Your task to perform on an android device: allow notifications from all sites in the chrome app Image 0: 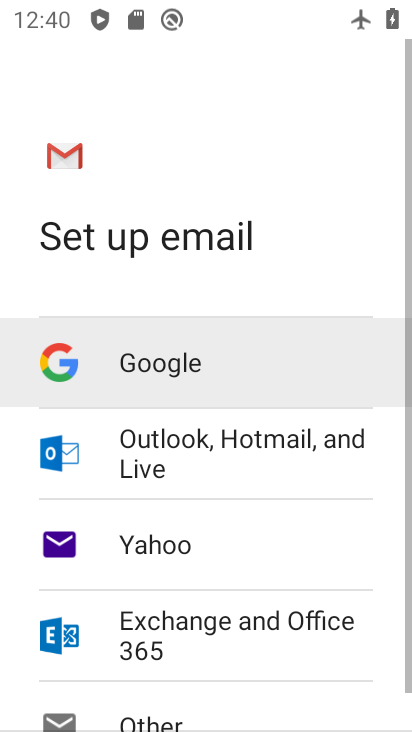
Step 0: press home button
Your task to perform on an android device: allow notifications from all sites in the chrome app Image 1: 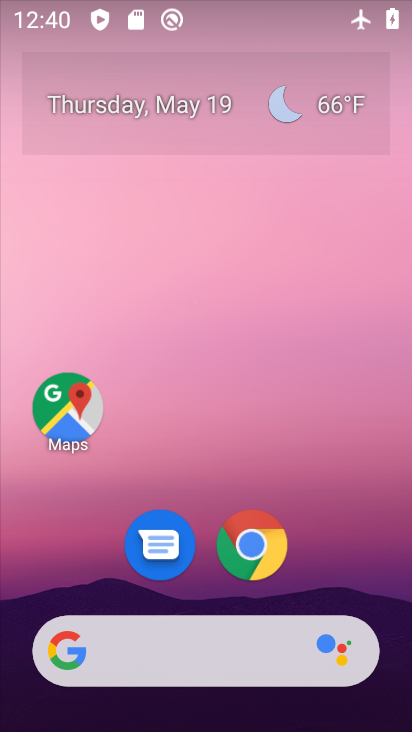
Step 1: click (247, 562)
Your task to perform on an android device: allow notifications from all sites in the chrome app Image 2: 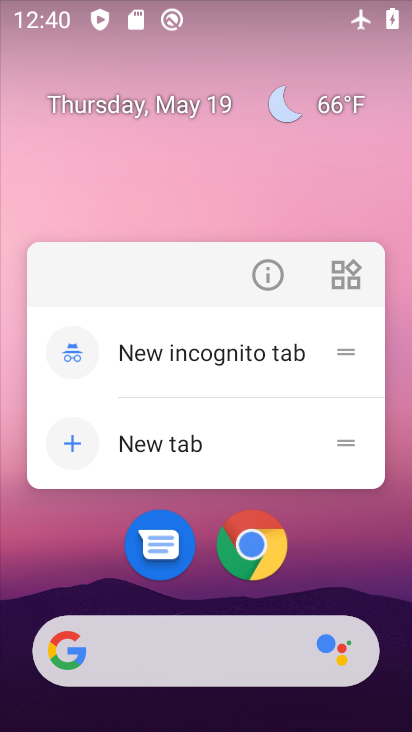
Step 2: click (247, 555)
Your task to perform on an android device: allow notifications from all sites in the chrome app Image 3: 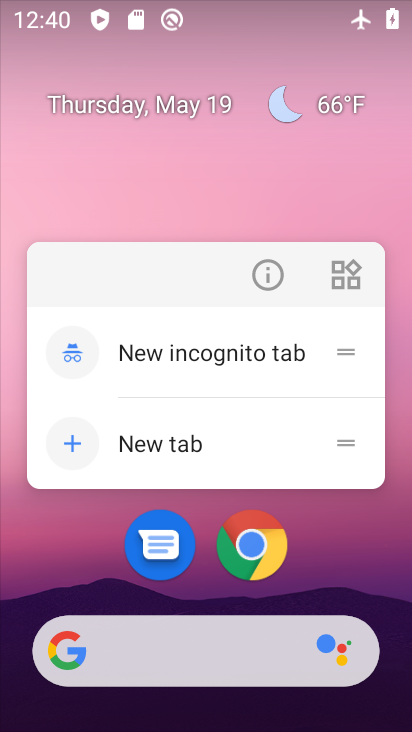
Step 3: click (247, 555)
Your task to perform on an android device: allow notifications from all sites in the chrome app Image 4: 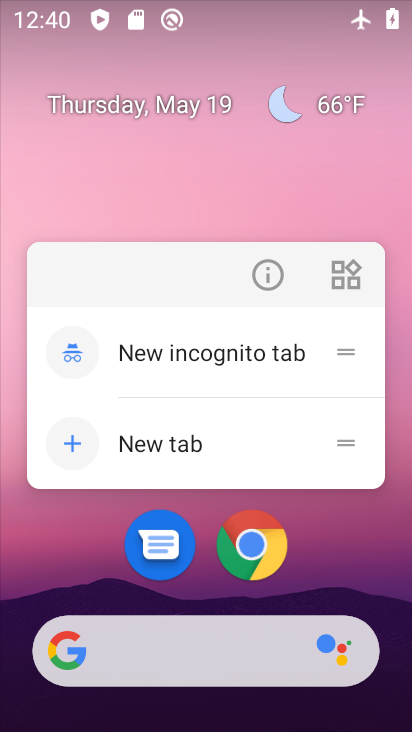
Step 4: click (247, 555)
Your task to perform on an android device: allow notifications from all sites in the chrome app Image 5: 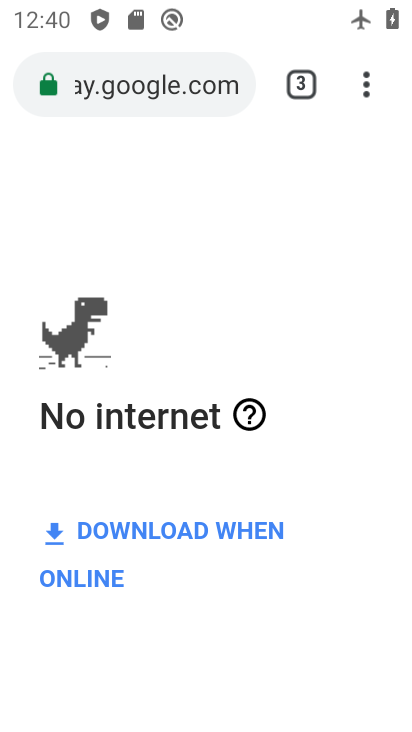
Step 5: click (365, 79)
Your task to perform on an android device: allow notifications from all sites in the chrome app Image 6: 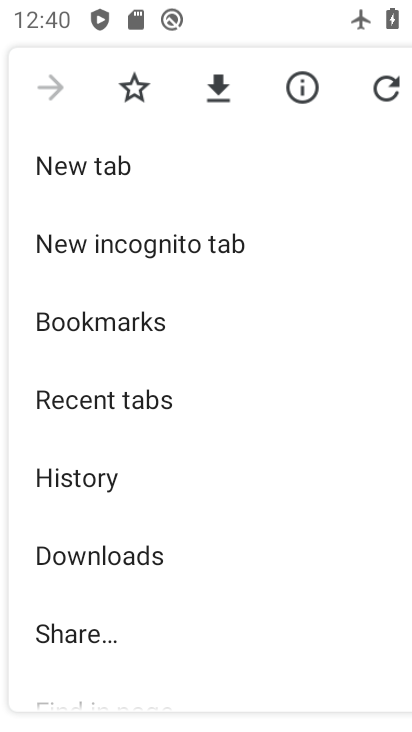
Step 6: drag from (267, 706) to (242, 208)
Your task to perform on an android device: allow notifications from all sites in the chrome app Image 7: 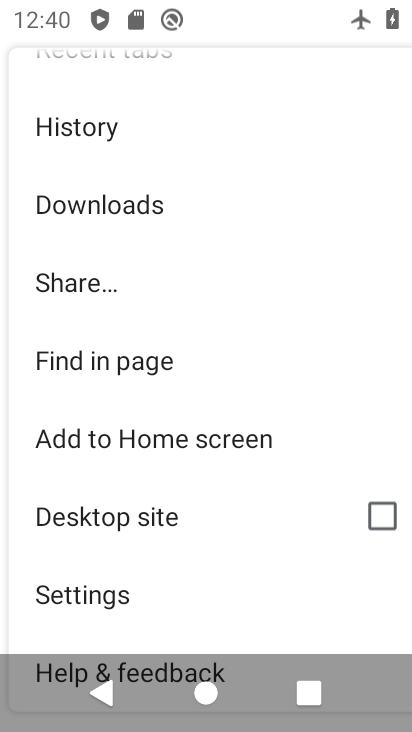
Step 7: click (101, 574)
Your task to perform on an android device: allow notifications from all sites in the chrome app Image 8: 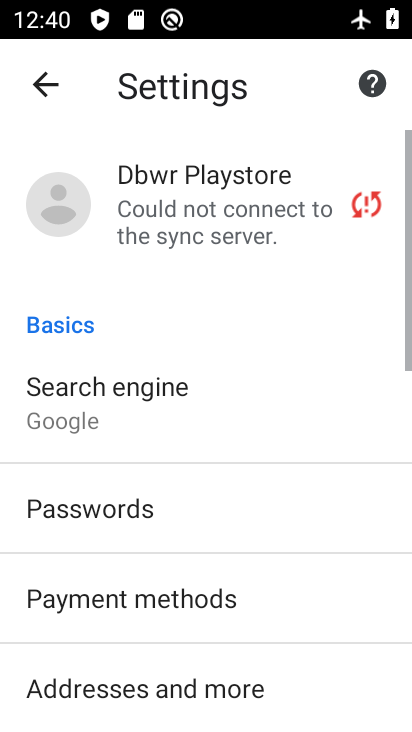
Step 8: drag from (257, 580) to (269, 259)
Your task to perform on an android device: allow notifications from all sites in the chrome app Image 9: 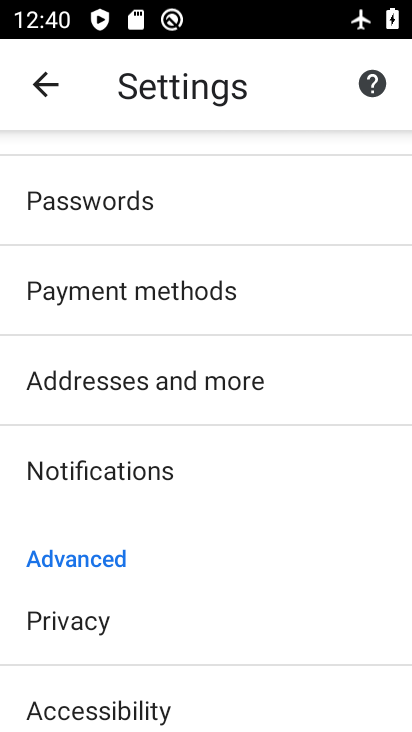
Step 9: click (137, 472)
Your task to perform on an android device: allow notifications from all sites in the chrome app Image 10: 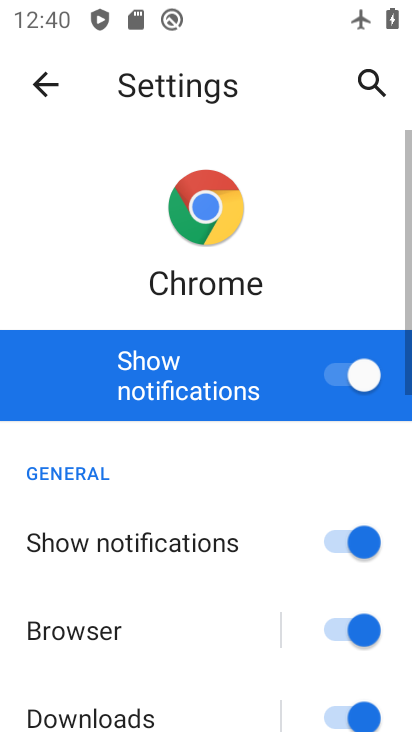
Step 10: task complete